Your task to perform on an android device: toggle notification dots Image 0: 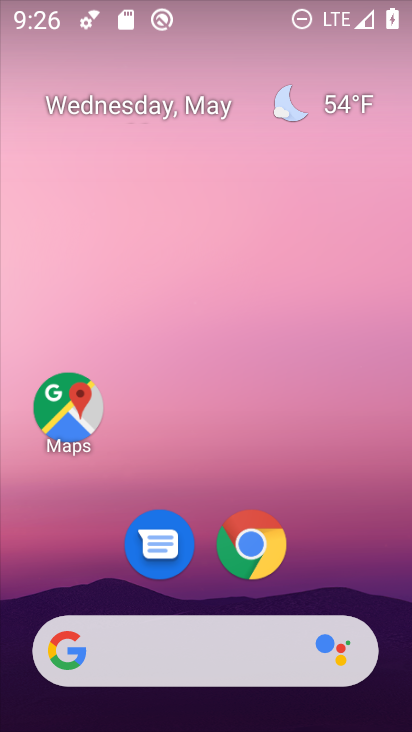
Step 0: drag from (197, 581) to (233, 157)
Your task to perform on an android device: toggle notification dots Image 1: 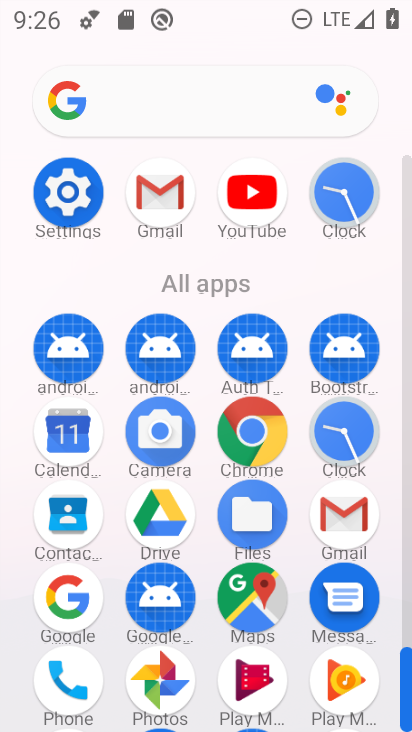
Step 1: click (78, 200)
Your task to perform on an android device: toggle notification dots Image 2: 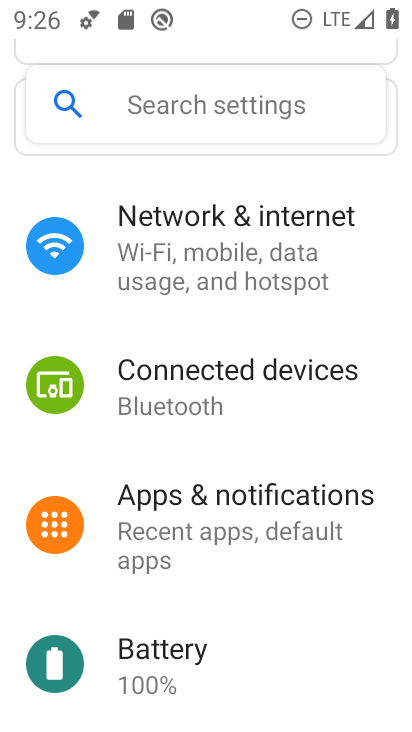
Step 2: click (202, 517)
Your task to perform on an android device: toggle notification dots Image 3: 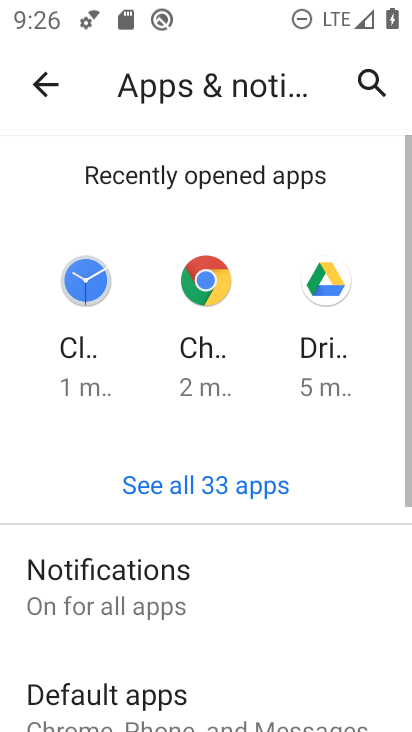
Step 3: drag from (202, 517) to (223, 311)
Your task to perform on an android device: toggle notification dots Image 4: 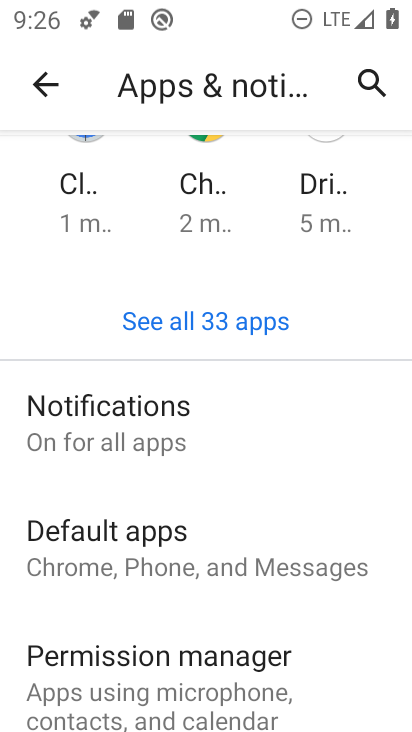
Step 4: click (150, 428)
Your task to perform on an android device: toggle notification dots Image 5: 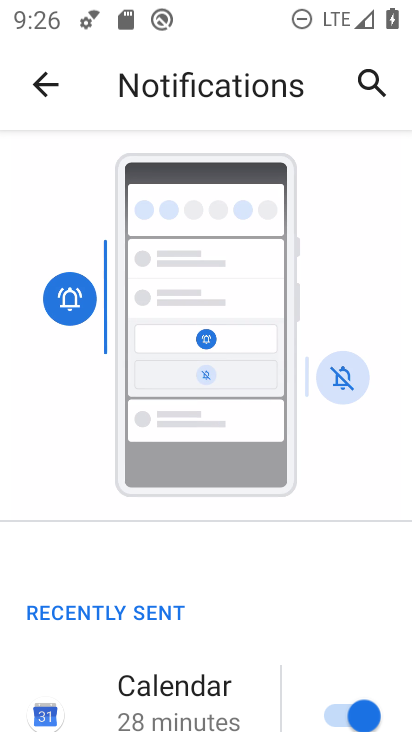
Step 5: drag from (181, 717) to (228, 396)
Your task to perform on an android device: toggle notification dots Image 6: 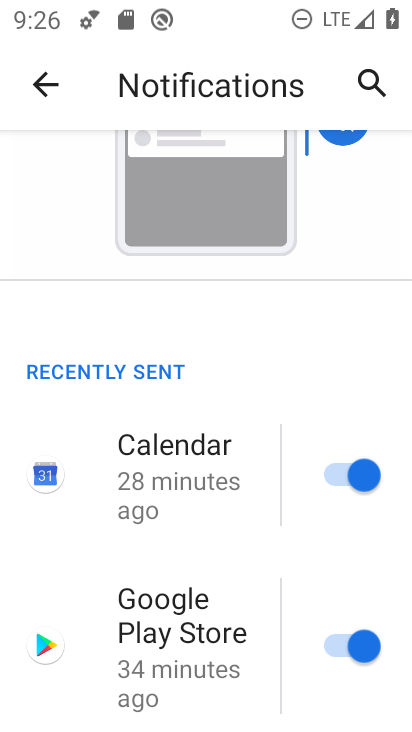
Step 6: drag from (190, 607) to (217, 93)
Your task to perform on an android device: toggle notification dots Image 7: 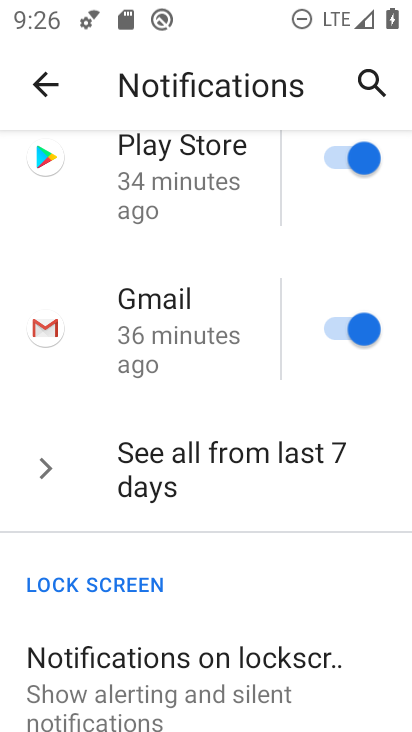
Step 7: drag from (163, 687) to (216, 329)
Your task to perform on an android device: toggle notification dots Image 8: 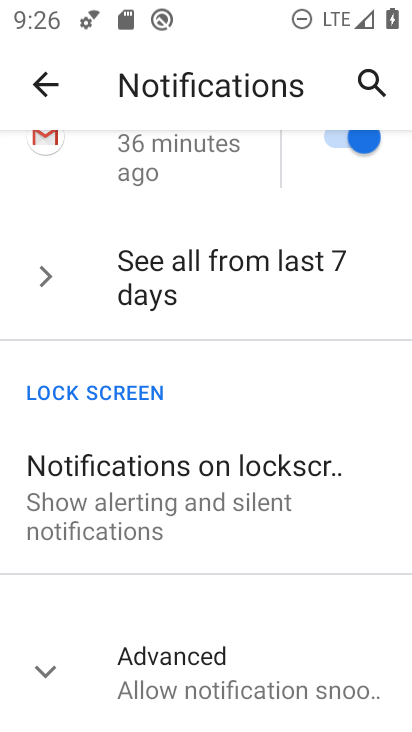
Step 8: click (213, 647)
Your task to perform on an android device: toggle notification dots Image 9: 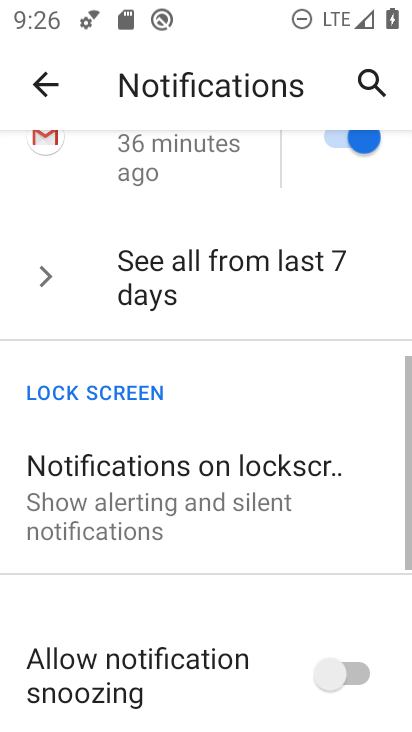
Step 9: drag from (213, 647) to (256, 194)
Your task to perform on an android device: toggle notification dots Image 10: 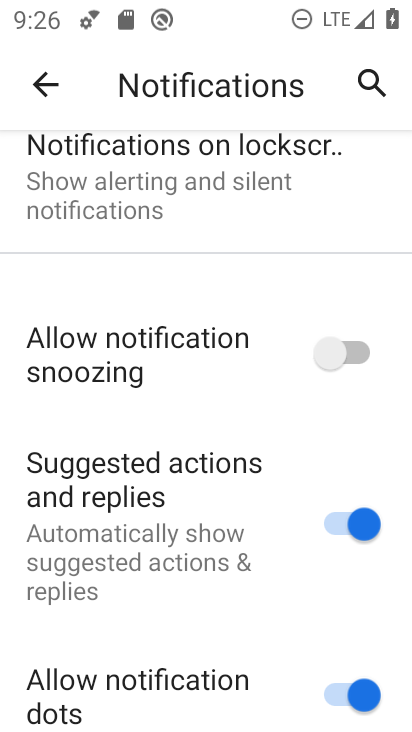
Step 10: click (379, 701)
Your task to perform on an android device: toggle notification dots Image 11: 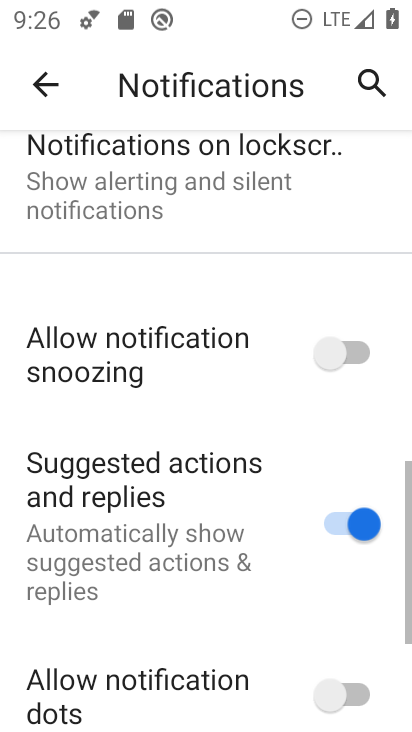
Step 11: click (379, 701)
Your task to perform on an android device: toggle notification dots Image 12: 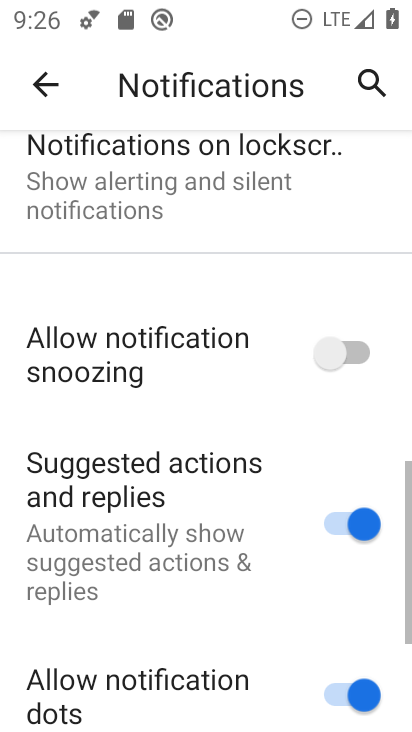
Step 12: click (379, 701)
Your task to perform on an android device: toggle notification dots Image 13: 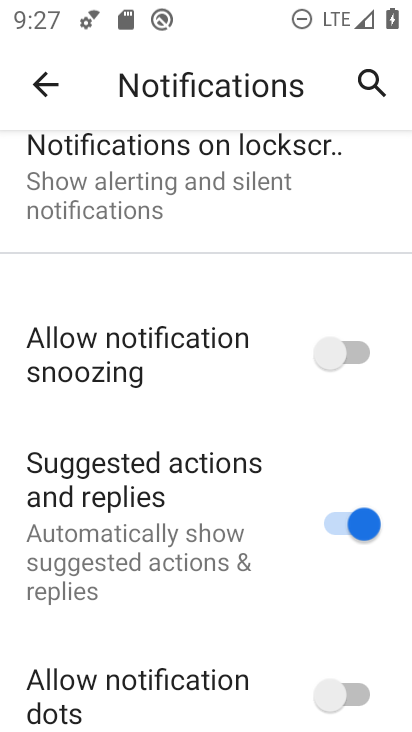
Step 13: click (379, 701)
Your task to perform on an android device: toggle notification dots Image 14: 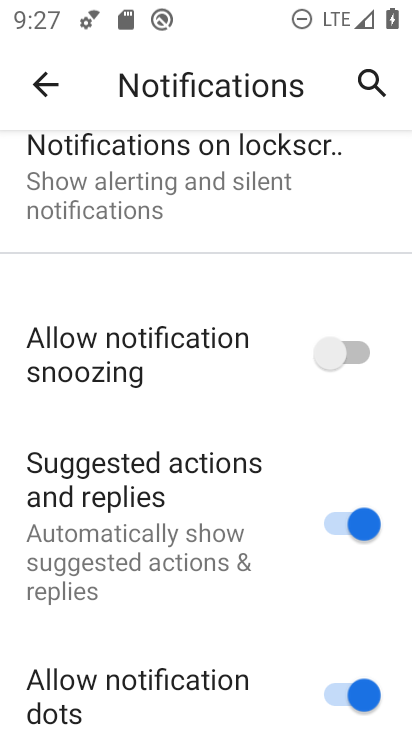
Step 14: click (379, 701)
Your task to perform on an android device: toggle notification dots Image 15: 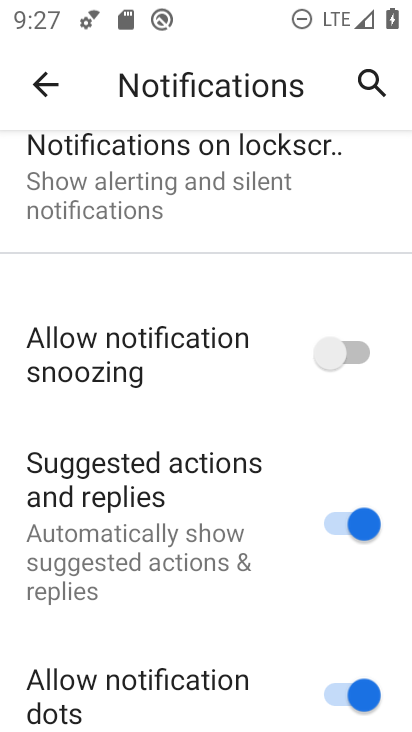
Step 15: click (379, 701)
Your task to perform on an android device: toggle notification dots Image 16: 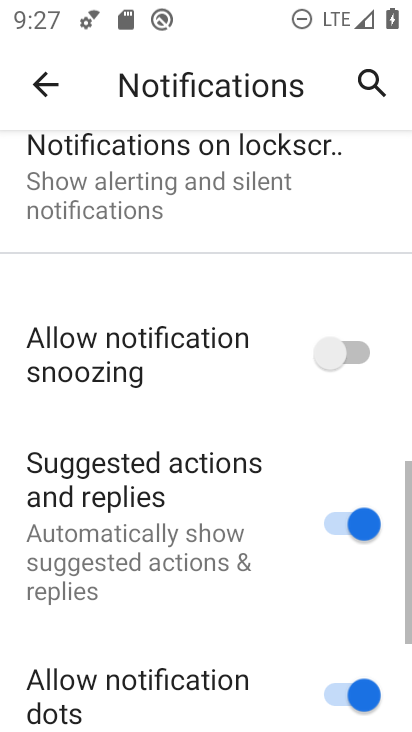
Step 16: click (379, 701)
Your task to perform on an android device: toggle notification dots Image 17: 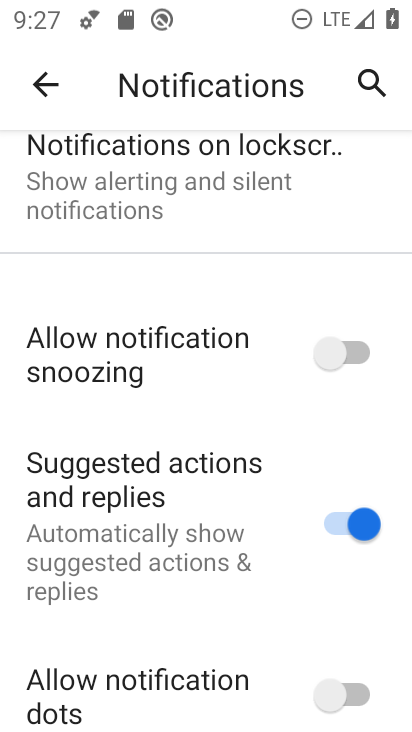
Step 17: task complete